Your task to perform on an android device: Open Reddit.com Image 0: 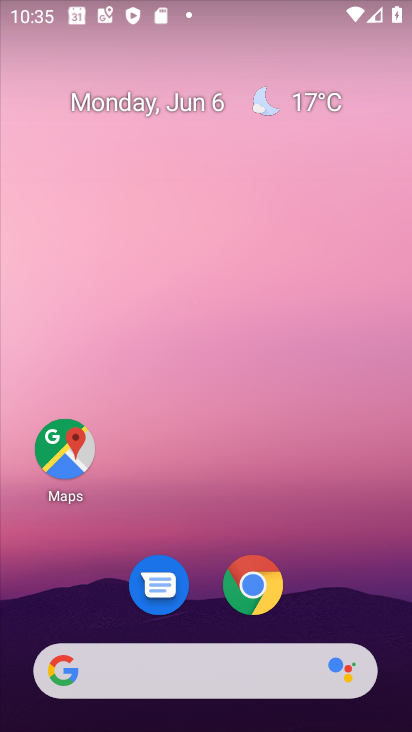
Step 0: click (218, 670)
Your task to perform on an android device: Open Reddit.com Image 1: 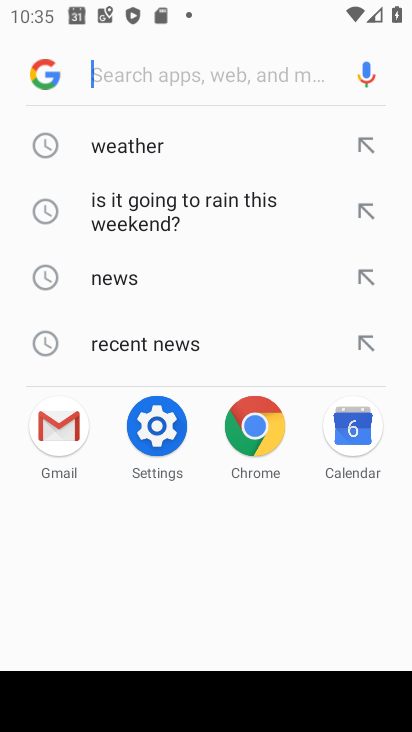
Step 1: type "reddit.com"
Your task to perform on an android device: Open Reddit.com Image 2: 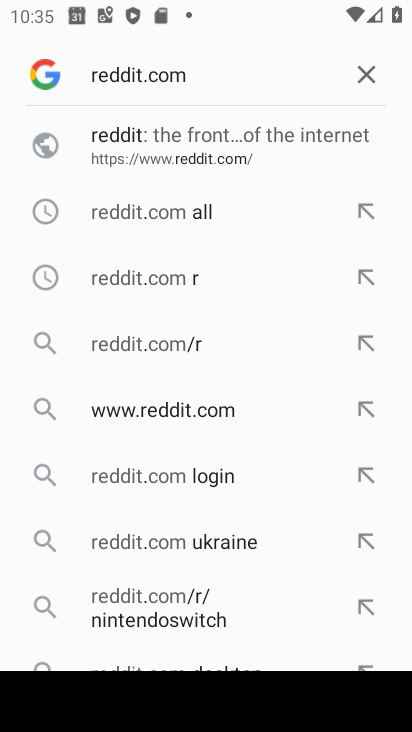
Step 2: click (111, 136)
Your task to perform on an android device: Open Reddit.com Image 3: 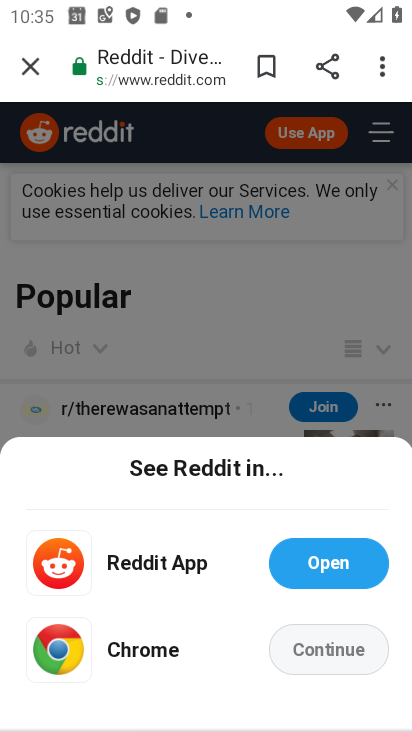
Step 3: task complete